Your task to perform on an android device: Show me the alarms in the clock app Image 0: 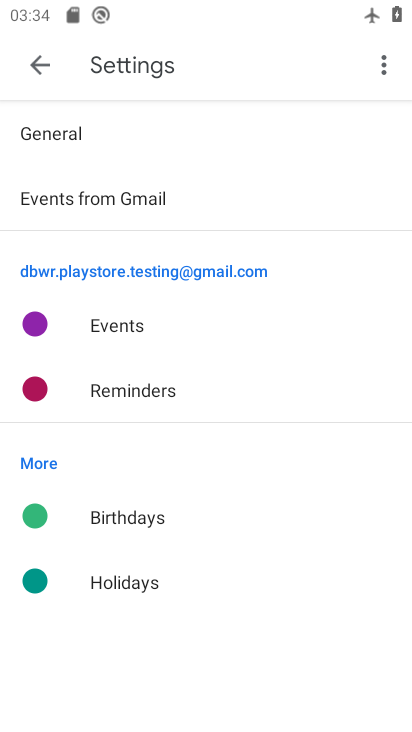
Step 0: press home button
Your task to perform on an android device: Show me the alarms in the clock app Image 1: 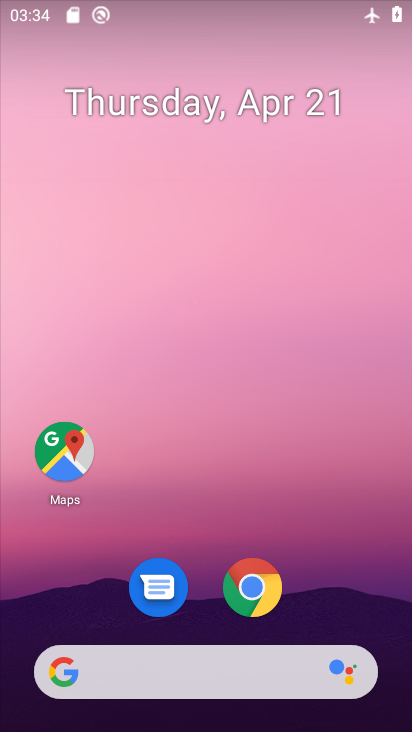
Step 1: drag from (333, 598) to (343, 216)
Your task to perform on an android device: Show me the alarms in the clock app Image 2: 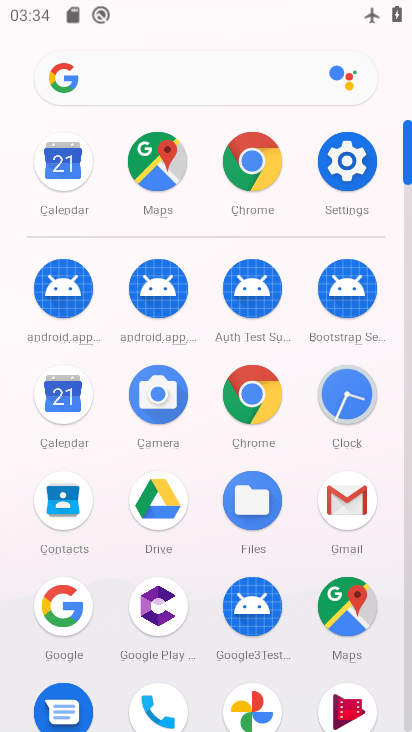
Step 2: click (342, 409)
Your task to perform on an android device: Show me the alarms in the clock app Image 3: 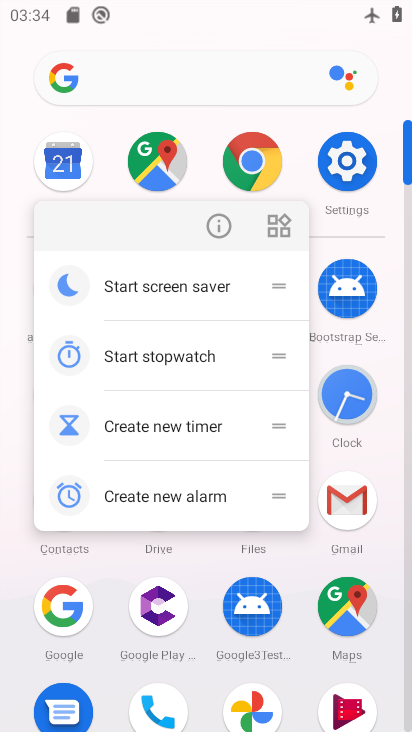
Step 3: click (342, 409)
Your task to perform on an android device: Show me the alarms in the clock app Image 4: 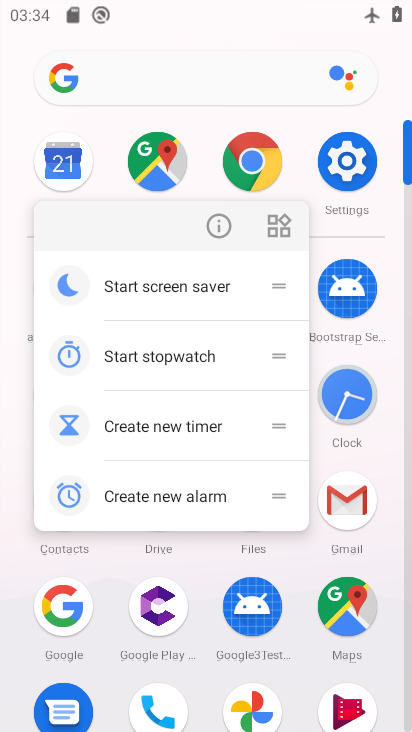
Step 4: click (342, 409)
Your task to perform on an android device: Show me the alarms in the clock app Image 5: 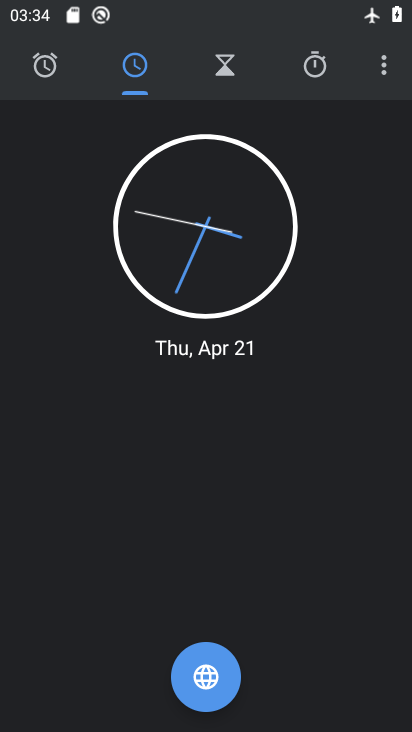
Step 5: click (49, 79)
Your task to perform on an android device: Show me the alarms in the clock app Image 6: 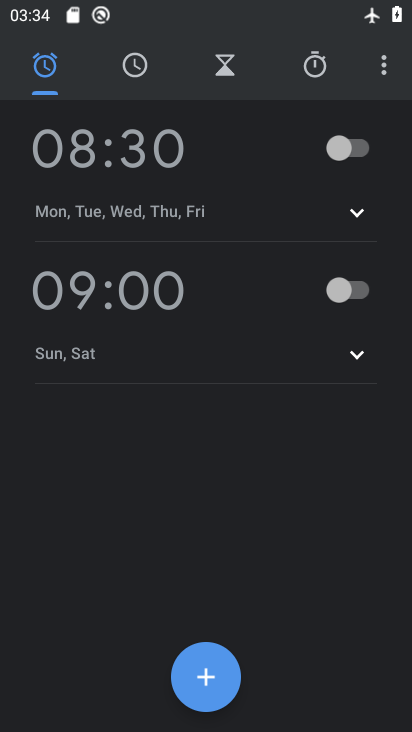
Step 6: task complete